Your task to perform on an android device: Open calendar and show me the fourth week of next month Image 0: 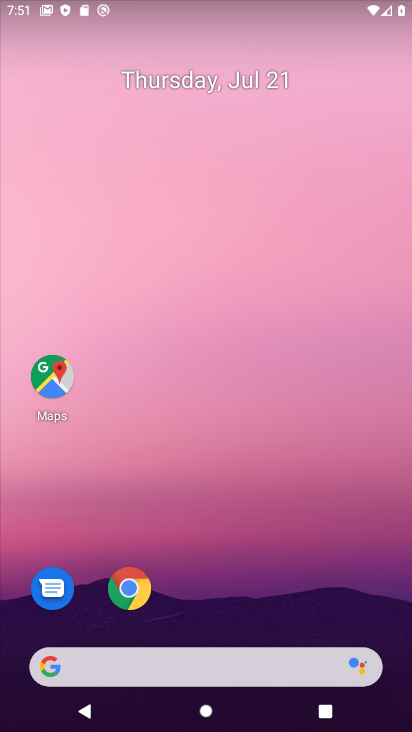
Step 0: drag from (228, 612) to (133, 163)
Your task to perform on an android device: Open calendar and show me the fourth week of next month Image 1: 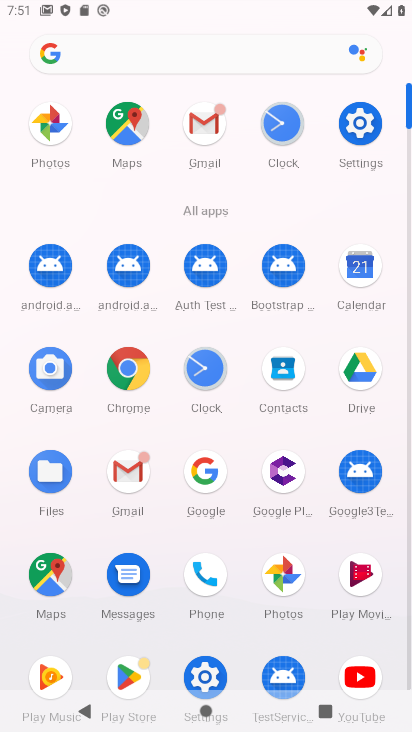
Step 1: click (372, 267)
Your task to perform on an android device: Open calendar and show me the fourth week of next month Image 2: 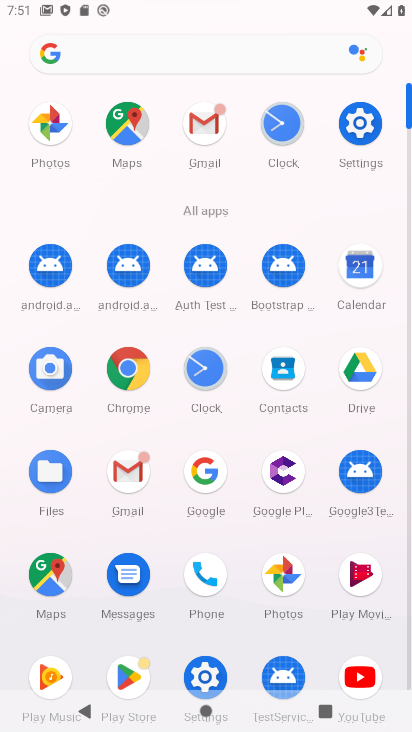
Step 2: click (358, 271)
Your task to perform on an android device: Open calendar and show me the fourth week of next month Image 3: 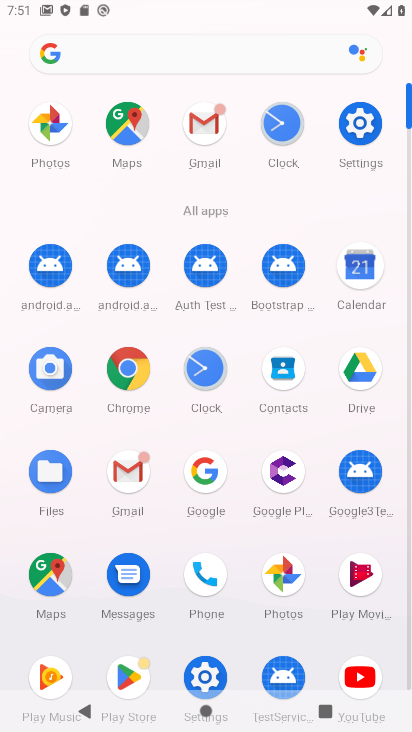
Step 3: click (354, 271)
Your task to perform on an android device: Open calendar and show me the fourth week of next month Image 4: 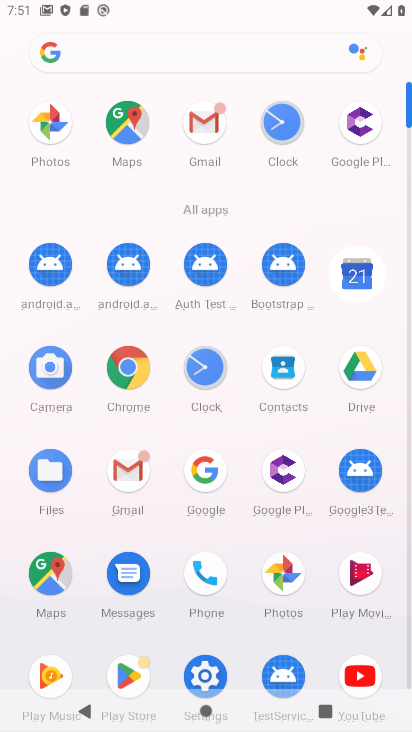
Step 4: click (354, 277)
Your task to perform on an android device: Open calendar and show me the fourth week of next month Image 5: 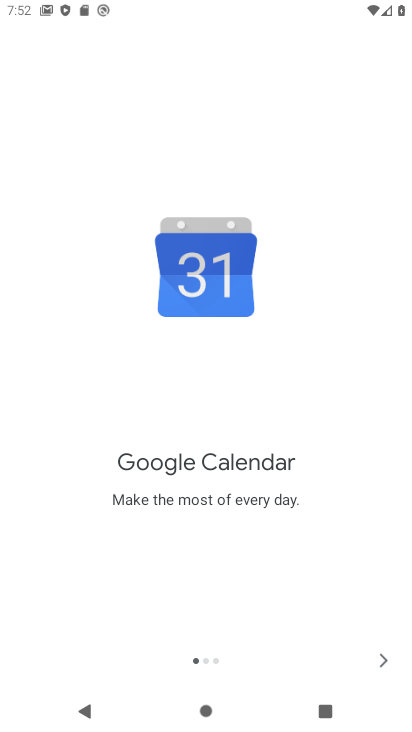
Step 5: click (381, 657)
Your task to perform on an android device: Open calendar and show me the fourth week of next month Image 6: 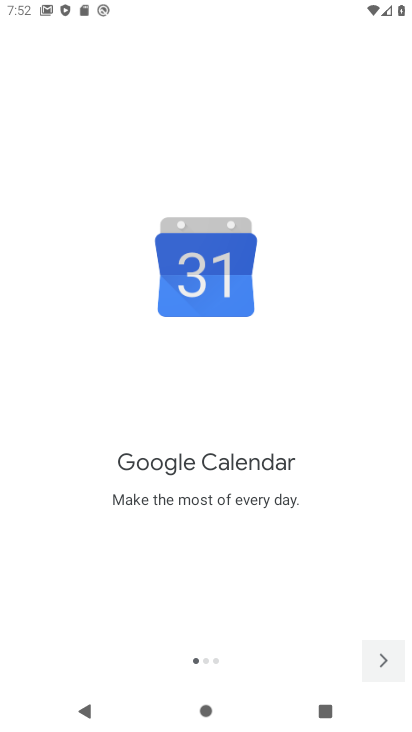
Step 6: click (381, 657)
Your task to perform on an android device: Open calendar and show me the fourth week of next month Image 7: 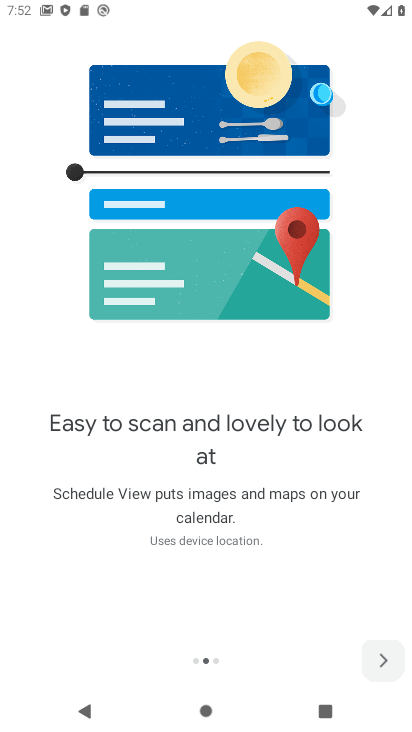
Step 7: click (381, 657)
Your task to perform on an android device: Open calendar and show me the fourth week of next month Image 8: 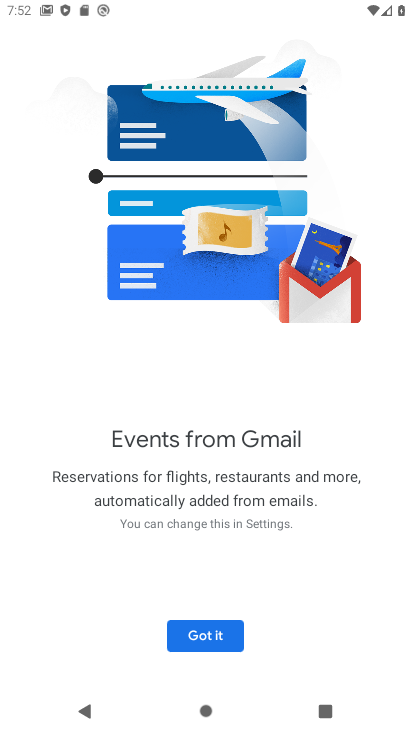
Step 8: click (213, 631)
Your task to perform on an android device: Open calendar and show me the fourth week of next month Image 9: 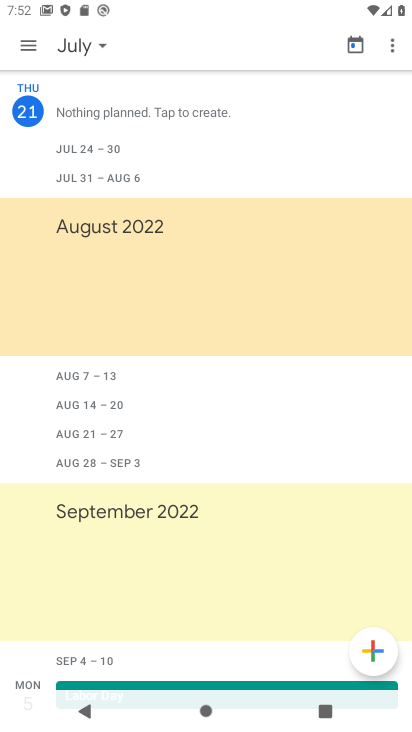
Step 9: click (98, 43)
Your task to perform on an android device: Open calendar and show me the fourth week of next month Image 10: 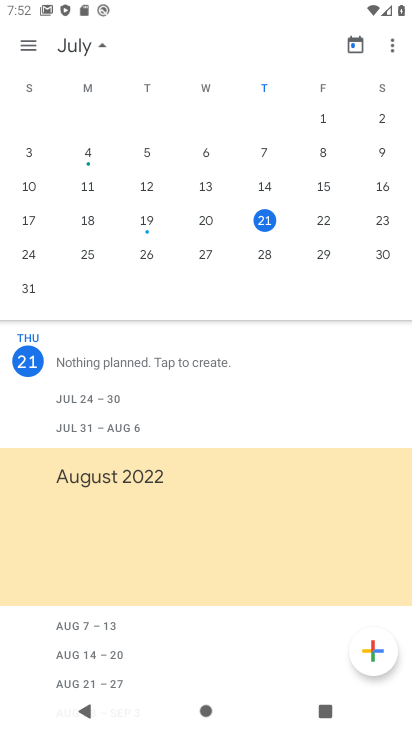
Step 10: drag from (332, 190) to (8, 254)
Your task to perform on an android device: Open calendar and show me the fourth week of next month Image 11: 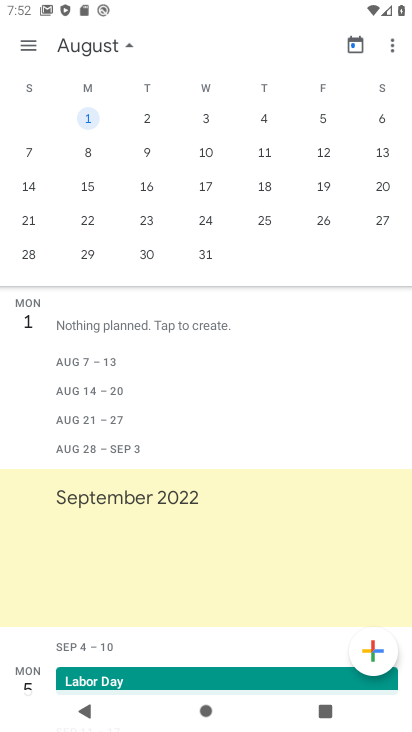
Step 11: click (147, 215)
Your task to perform on an android device: Open calendar and show me the fourth week of next month Image 12: 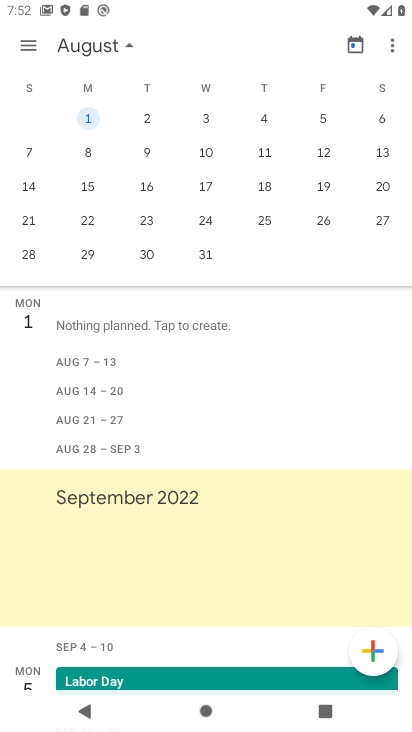
Step 12: click (147, 216)
Your task to perform on an android device: Open calendar and show me the fourth week of next month Image 13: 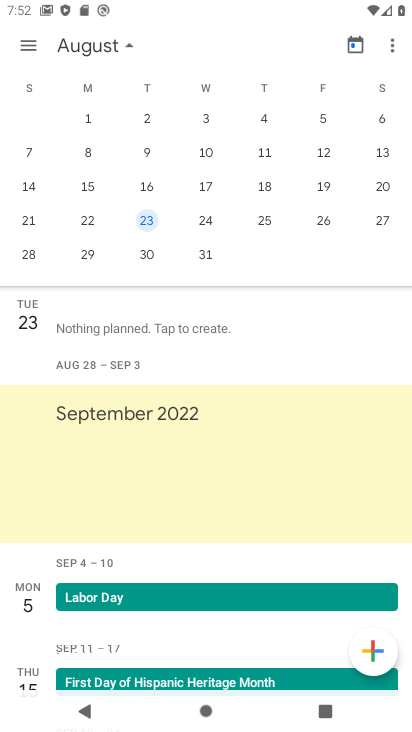
Step 13: click (137, 215)
Your task to perform on an android device: Open calendar and show me the fourth week of next month Image 14: 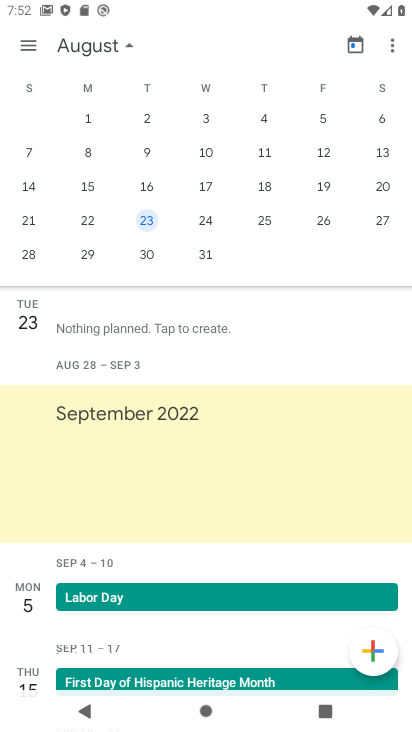
Step 14: click (137, 215)
Your task to perform on an android device: Open calendar and show me the fourth week of next month Image 15: 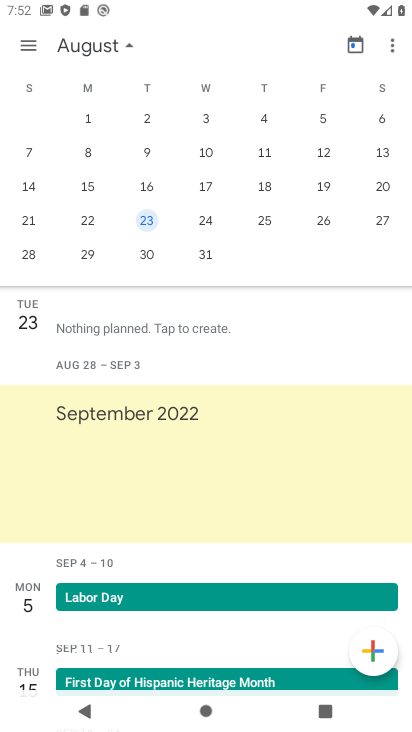
Step 15: task complete